Your task to perform on an android device: turn off improve location accuracy Image 0: 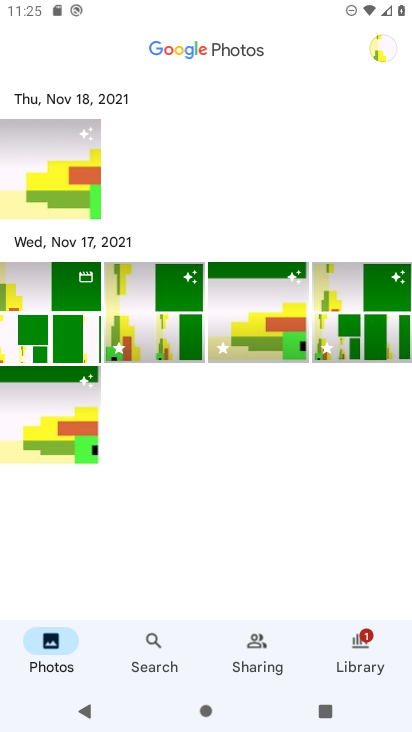
Step 0: press home button
Your task to perform on an android device: turn off improve location accuracy Image 1: 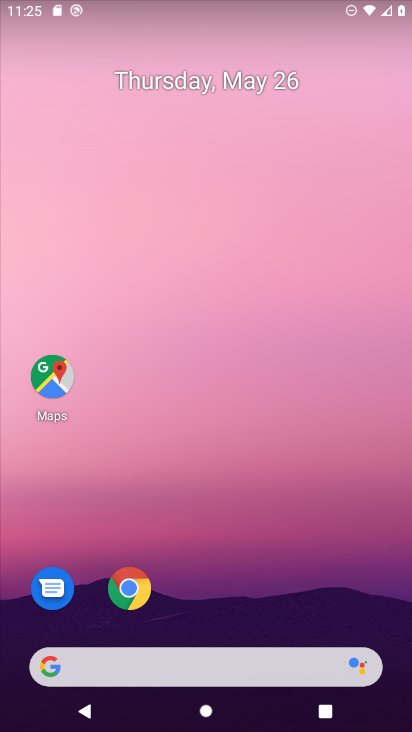
Step 1: drag from (380, 619) to (346, 110)
Your task to perform on an android device: turn off improve location accuracy Image 2: 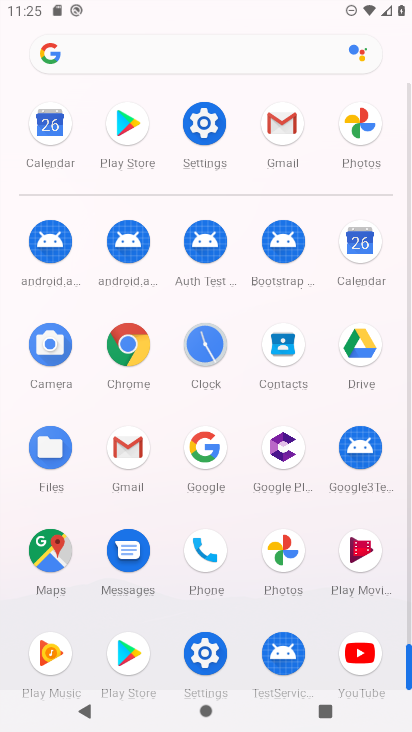
Step 2: click (206, 654)
Your task to perform on an android device: turn off improve location accuracy Image 3: 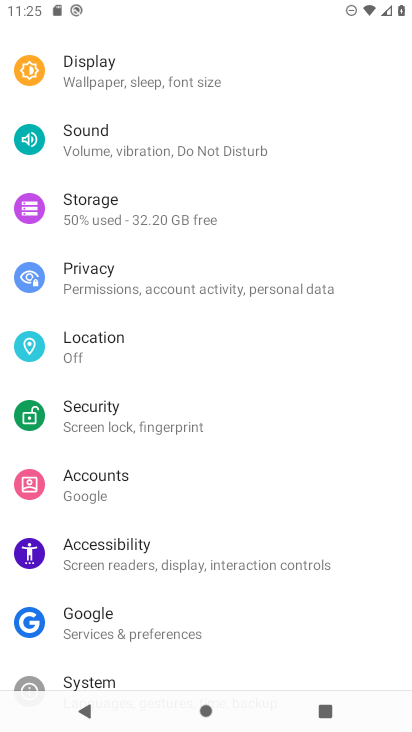
Step 3: drag from (321, 137) to (333, 387)
Your task to perform on an android device: turn off improve location accuracy Image 4: 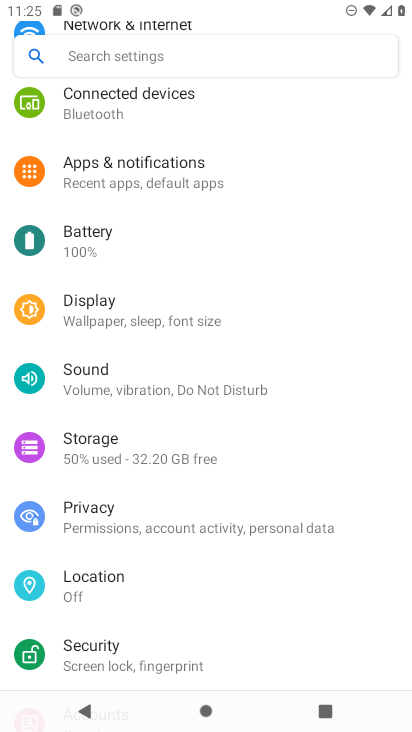
Step 4: click (84, 572)
Your task to perform on an android device: turn off improve location accuracy Image 5: 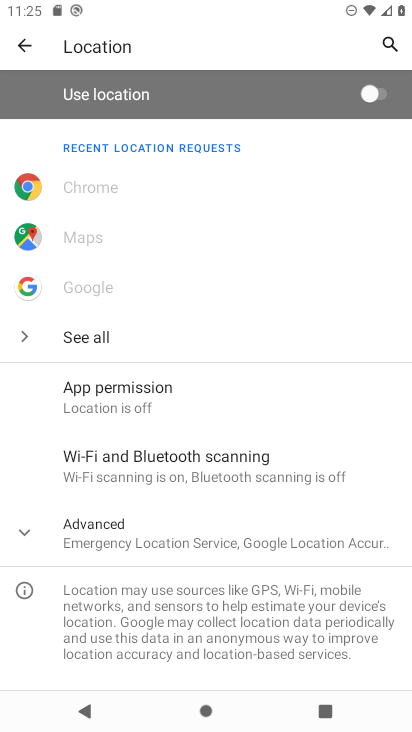
Step 5: click (16, 532)
Your task to perform on an android device: turn off improve location accuracy Image 6: 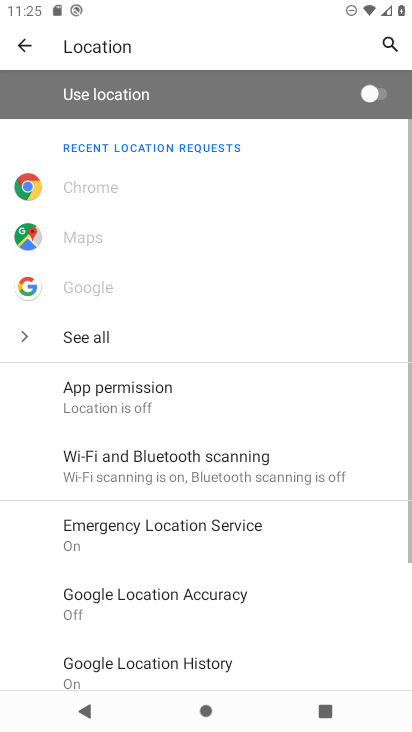
Step 6: drag from (272, 553) to (286, 206)
Your task to perform on an android device: turn off improve location accuracy Image 7: 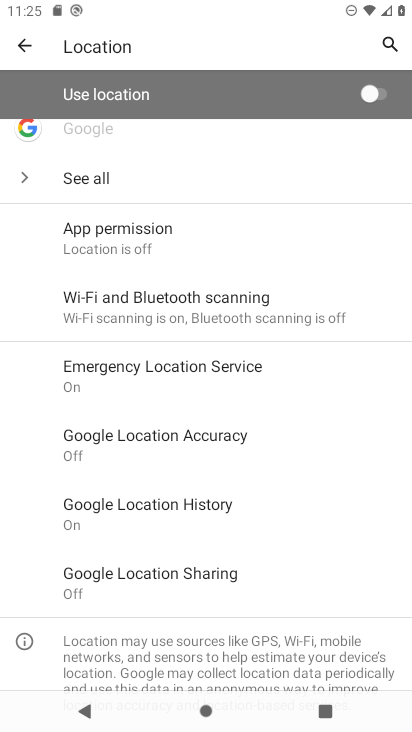
Step 7: click (156, 444)
Your task to perform on an android device: turn off improve location accuracy Image 8: 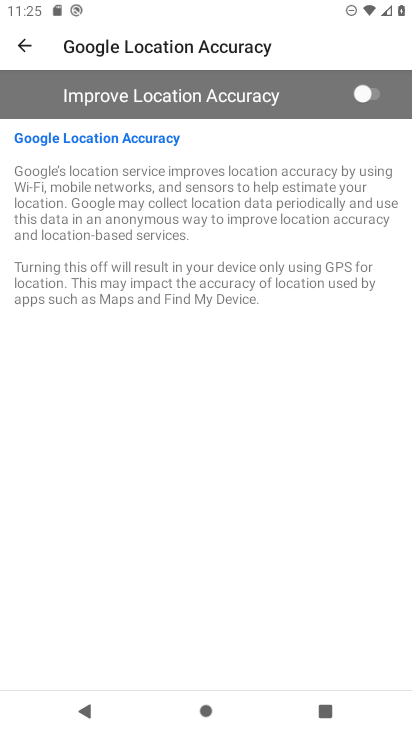
Step 8: task complete